Your task to perform on an android device: Turn on the flashlight Image 0: 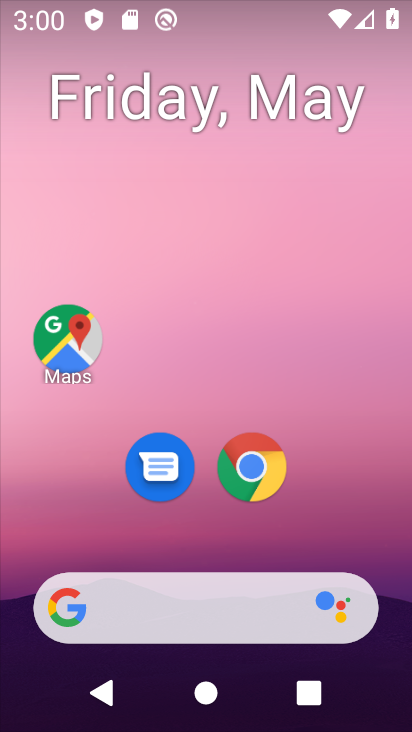
Step 0: drag from (376, 492) to (288, 38)
Your task to perform on an android device: Turn on the flashlight Image 1: 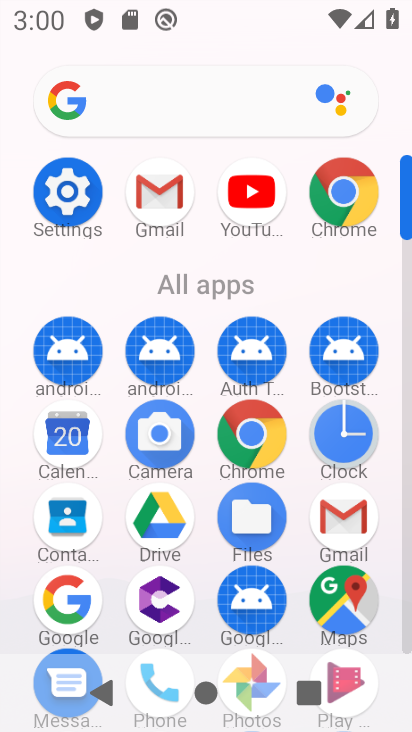
Step 1: click (72, 193)
Your task to perform on an android device: Turn on the flashlight Image 2: 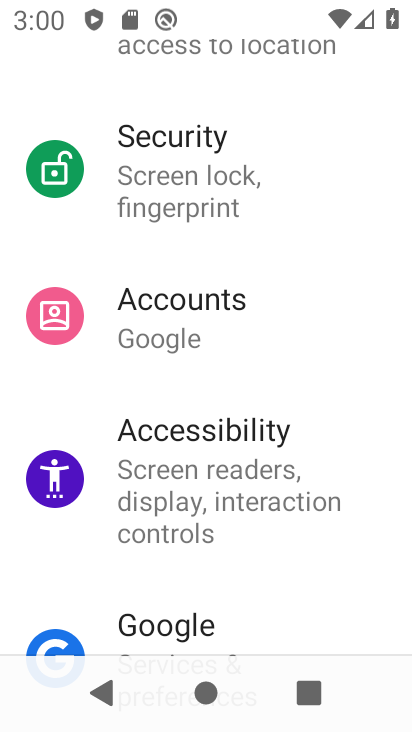
Step 2: task complete